Your task to perform on an android device: toggle show notifications on the lock screen Image 0: 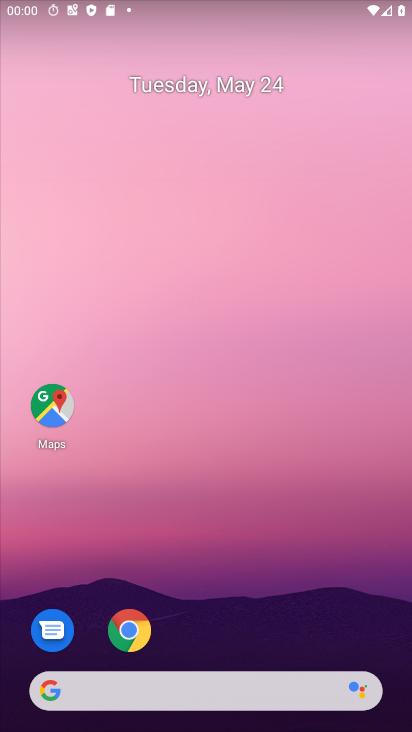
Step 0: drag from (251, 649) to (249, 124)
Your task to perform on an android device: toggle show notifications on the lock screen Image 1: 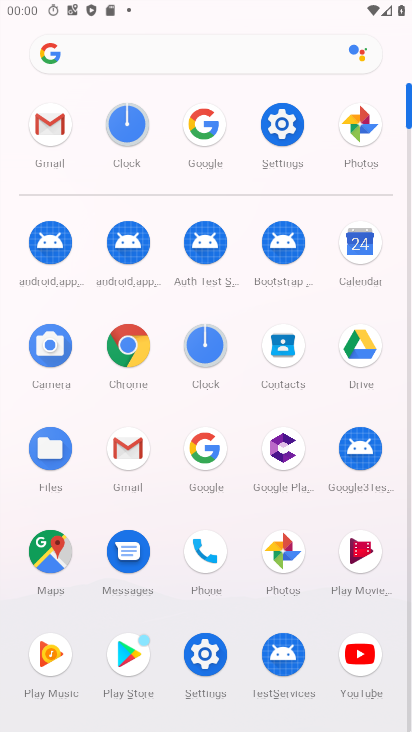
Step 1: click (277, 127)
Your task to perform on an android device: toggle show notifications on the lock screen Image 2: 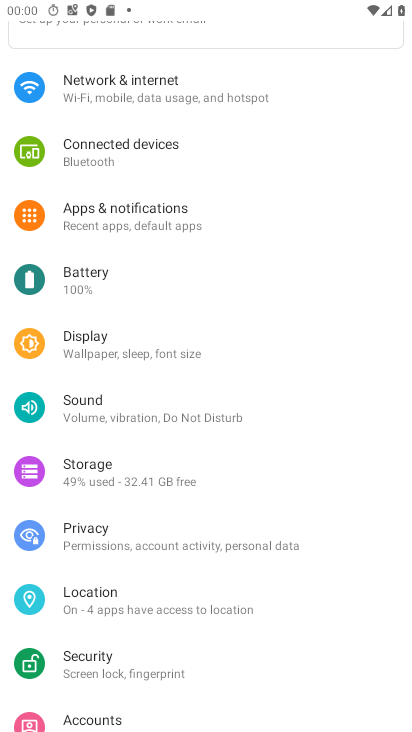
Step 2: click (88, 226)
Your task to perform on an android device: toggle show notifications on the lock screen Image 3: 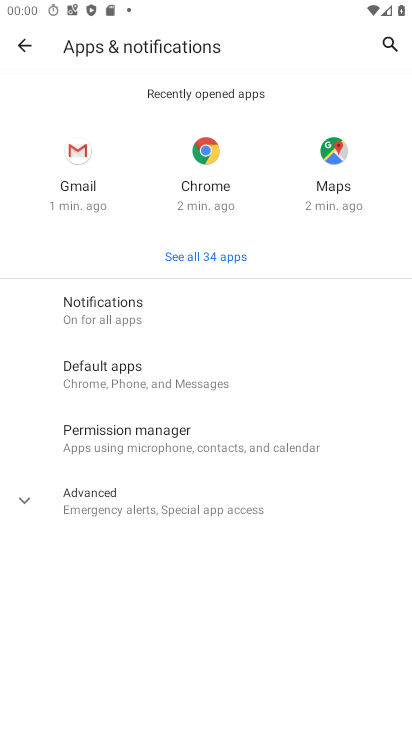
Step 3: click (91, 303)
Your task to perform on an android device: toggle show notifications on the lock screen Image 4: 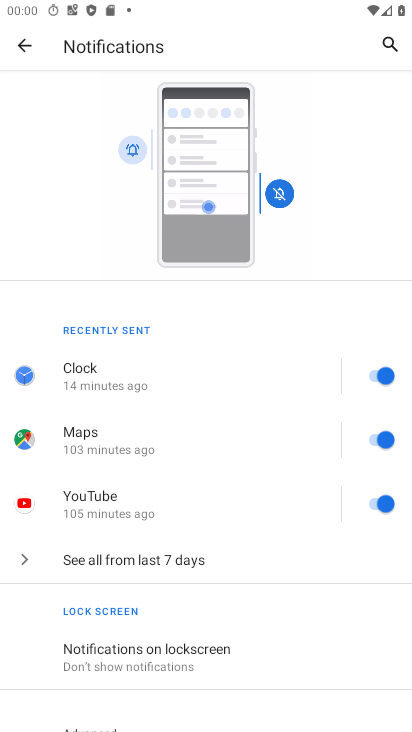
Step 4: click (90, 683)
Your task to perform on an android device: toggle show notifications on the lock screen Image 5: 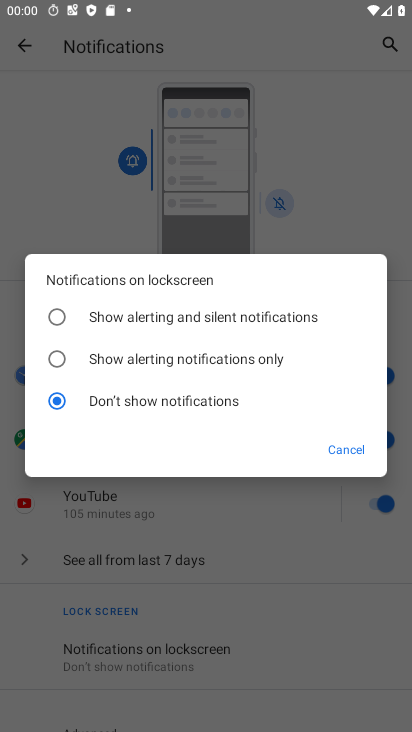
Step 5: click (50, 317)
Your task to perform on an android device: toggle show notifications on the lock screen Image 6: 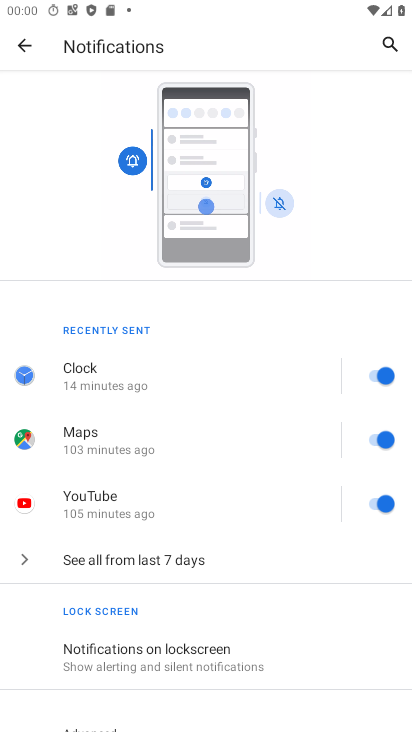
Step 6: task complete